Your task to perform on an android device: Go to calendar. Show me events next week Image 0: 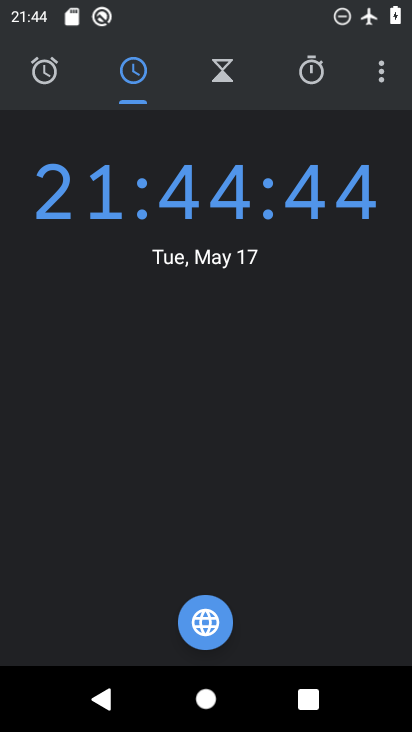
Step 0: press home button
Your task to perform on an android device: Go to calendar. Show me events next week Image 1: 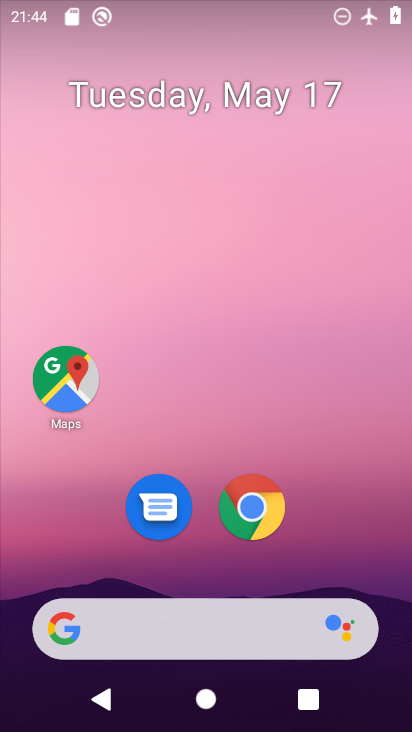
Step 1: drag from (365, 578) to (350, 6)
Your task to perform on an android device: Go to calendar. Show me events next week Image 2: 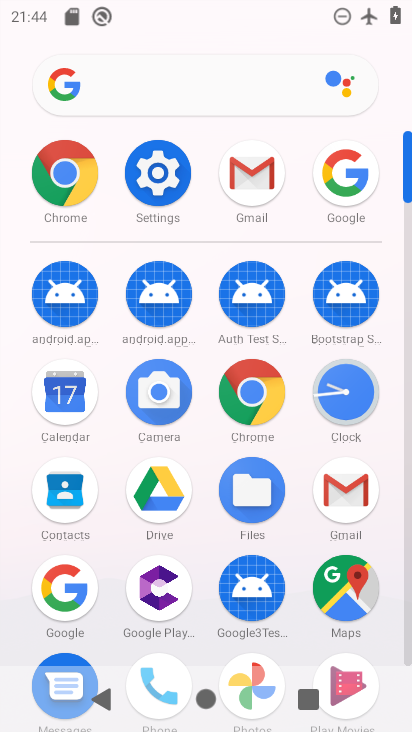
Step 2: click (65, 391)
Your task to perform on an android device: Go to calendar. Show me events next week Image 3: 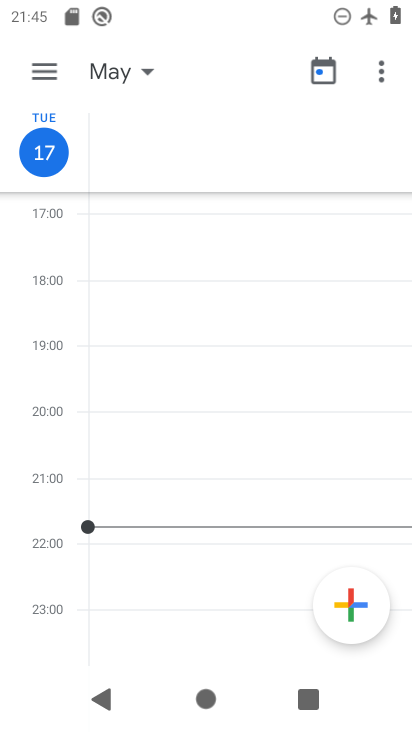
Step 3: click (40, 68)
Your task to perform on an android device: Go to calendar. Show me events next week Image 4: 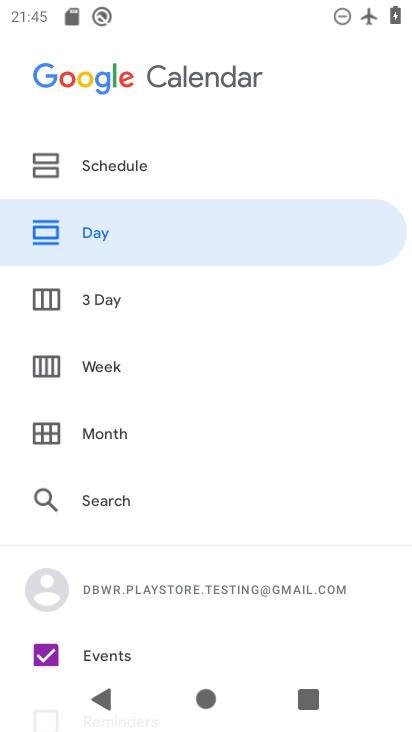
Step 4: click (108, 365)
Your task to perform on an android device: Go to calendar. Show me events next week Image 5: 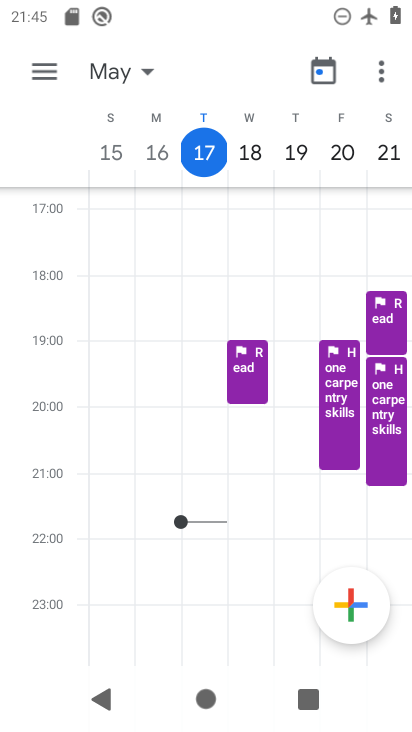
Step 5: task complete